Your task to perform on an android device: Open Maps and search for coffee Image 0: 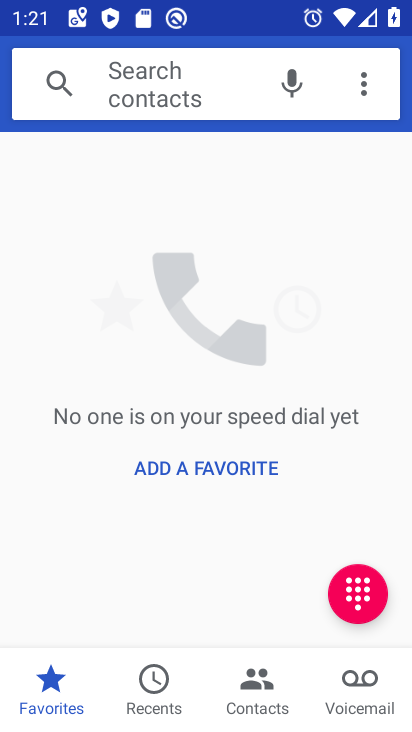
Step 0: press home button
Your task to perform on an android device: Open Maps and search for coffee Image 1: 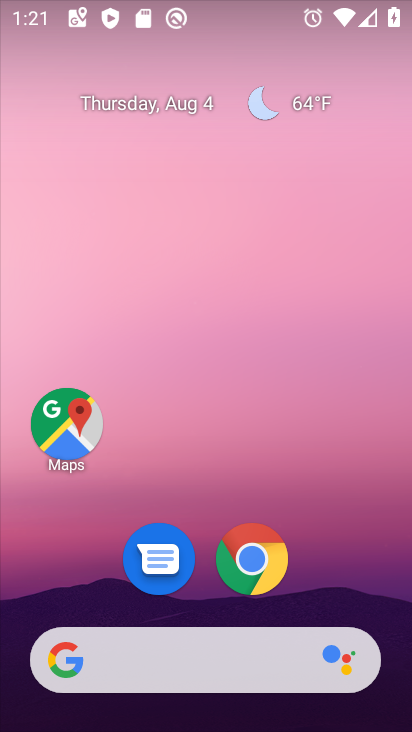
Step 1: click (61, 430)
Your task to perform on an android device: Open Maps and search for coffee Image 2: 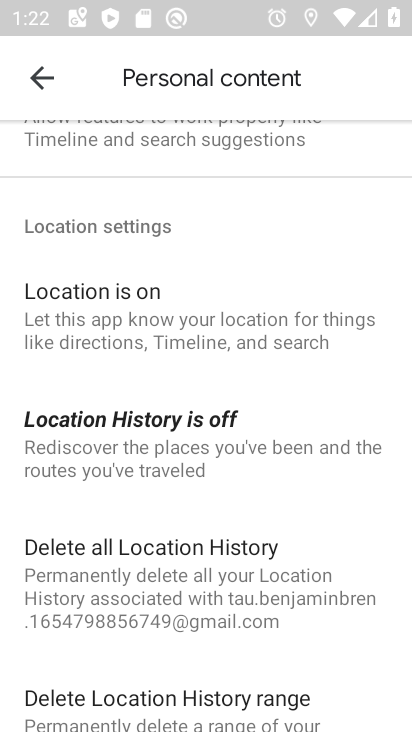
Step 2: task complete